Your task to perform on an android device: Set the phone to "Do not disturb". Image 0: 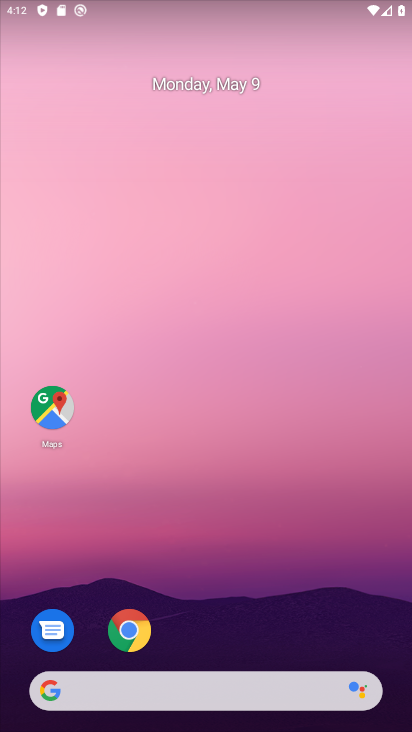
Step 0: drag from (331, 653) to (151, 105)
Your task to perform on an android device: Set the phone to "Do not disturb". Image 1: 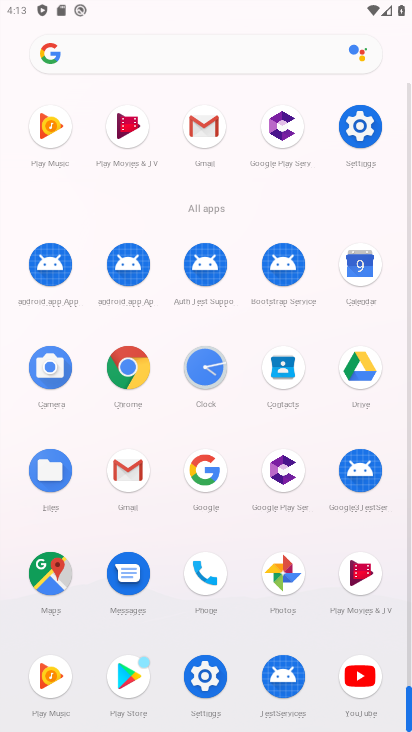
Step 1: click (366, 124)
Your task to perform on an android device: Set the phone to "Do not disturb". Image 2: 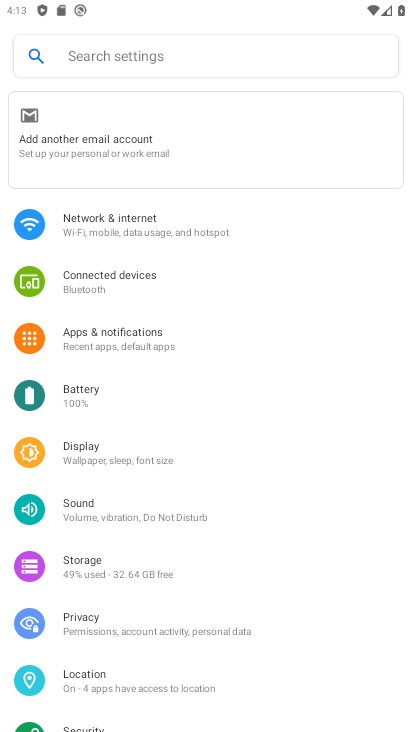
Step 2: click (120, 527)
Your task to perform on an android device: Set the phone to "Do not disturb". Image 3: 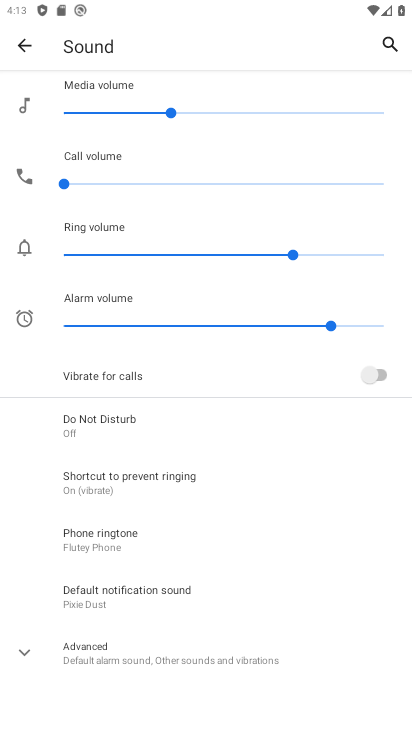
Step 3: click (89, 419)
Your task to perform on an android device: Set the phone to "Do not disturb". Image 4: 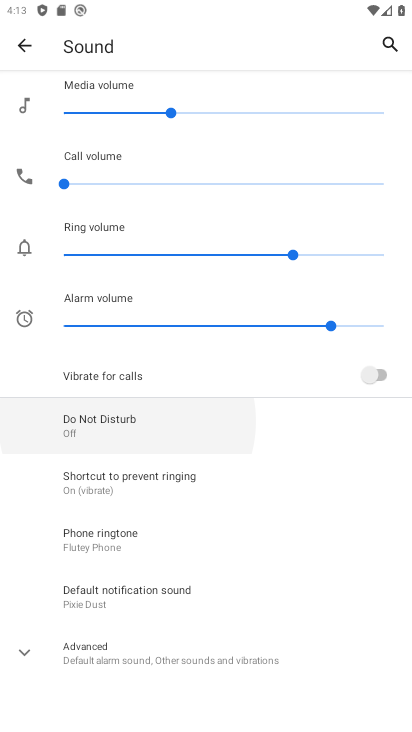
Step 4: click (89, 419)
Your task to perform on an android device: Set the phone to "Do not disturb". Image 5: 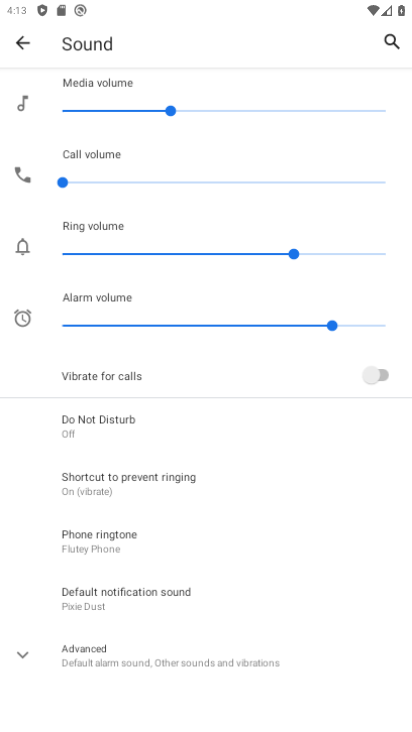
Step 5: click (89, 419)
Your task to perform on an android device: Set the phone to "Do not disturb". Image 6: 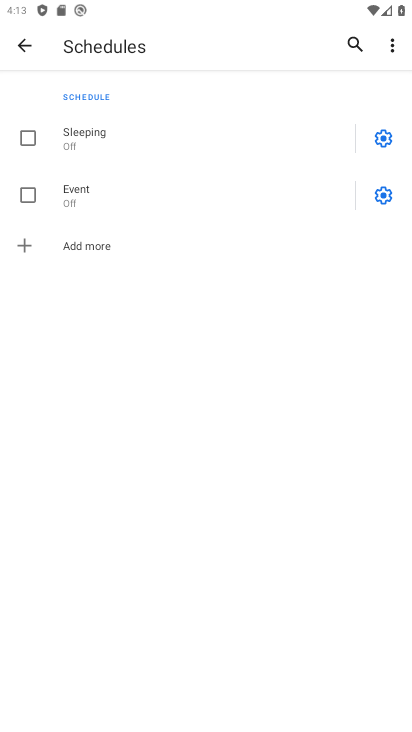
Step 6: click (23, 42)
Your task to perform on an android device: Set the phone to "Do not disturb". Image 7: 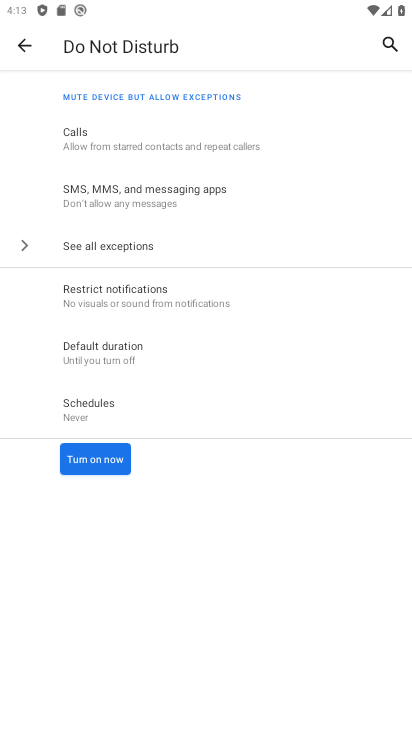
Step 7: click (94, 460)
Your task to perform on an android device: Set the phone to "Do not disturb". Image 8: 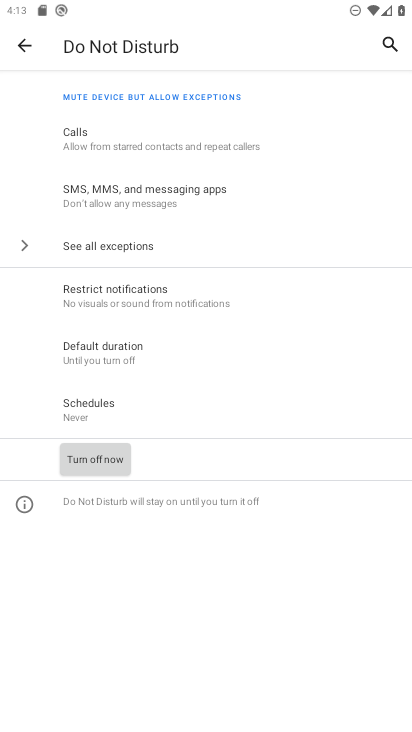
Step 8: task complete